Your task to perform on an android device: Open location settings Image 0: 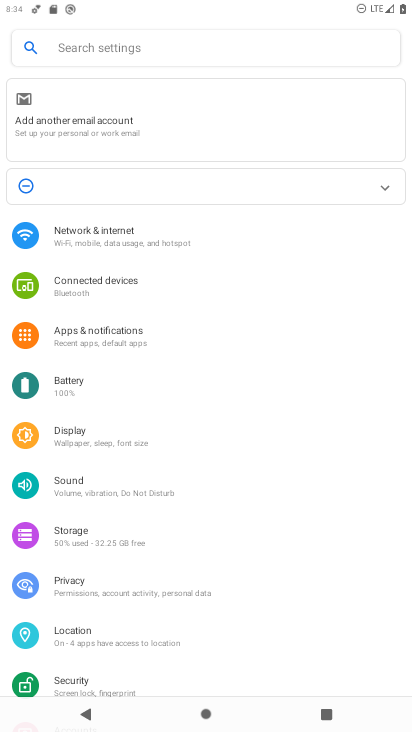
Step 0: click (110, 635)
Your task to perform on an android device: Open location settings Image 1: 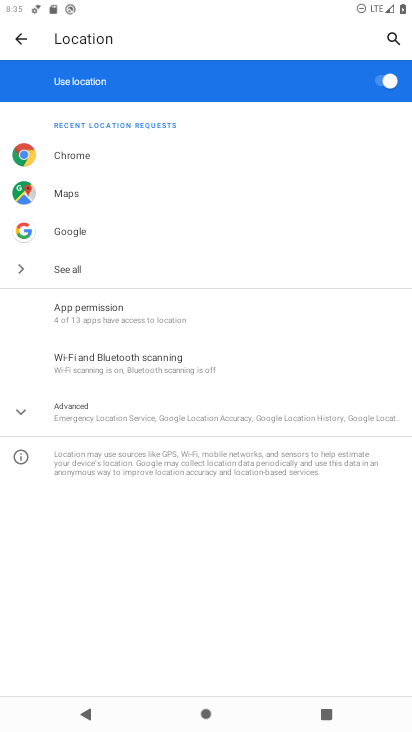
Step 1: task complete